Your task to perform on an android device: open app "Google Keep" Image 0: 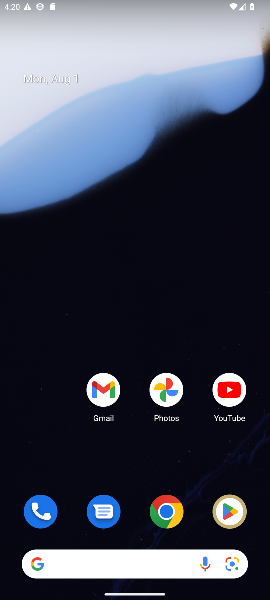
Step 0: click (222, 516)
Your task to perform on an android device: open app "Google Keep" Image 1: 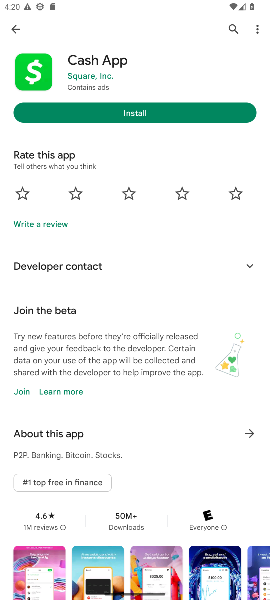
Step 1: click (14, 32)
Your task to perform on an android device: open app "Google Keep" Image 2: 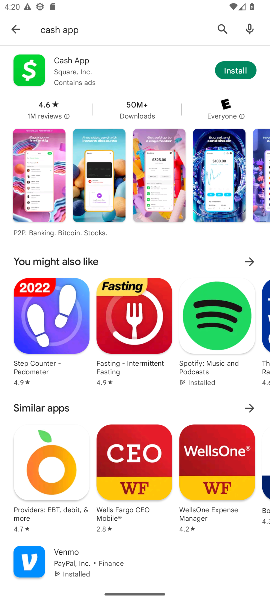
Step 2: click (14, 33)
Your task to perform on an android device: open app "Google Keep" Image 3: 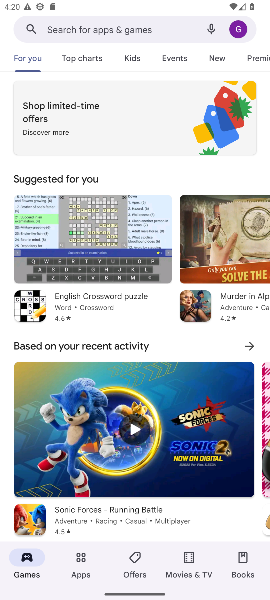
Step 3: click (64, 33)
Your task to perform on an android device: open app "Google Keep" Image 4: 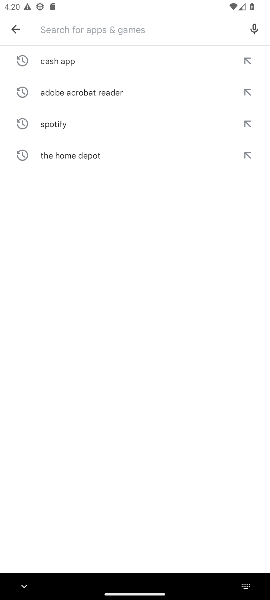
Step 4: type "google keep"
Your task to perform on an android device: open app "Google Keep" Image 5: 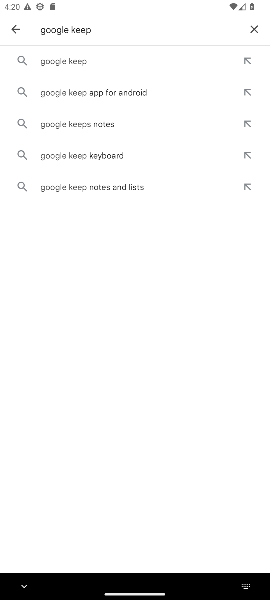
Step 5: click (58, 57)
Your task to perform on an android device: open app "Google Keep" Image 6: 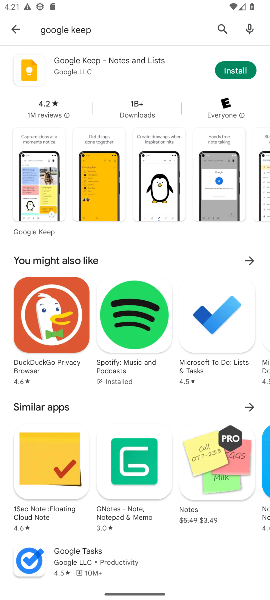
Step 6: click (242, 68)
Your task to perform on an android device: open app "Google Keep" Image 7: 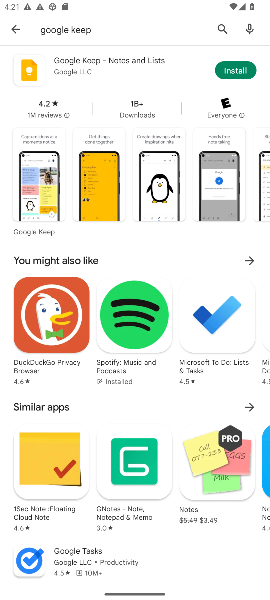
Step 7: click (231, 71)
Your task to perform on an android device: open app "Google Keep" Image 8: 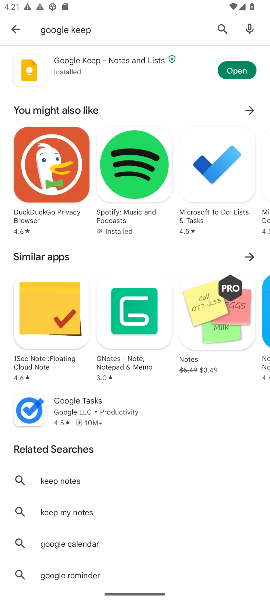
Step 8: click (238, 75)
Your task to perform on an android device: open app "Google Keep" Image 9: 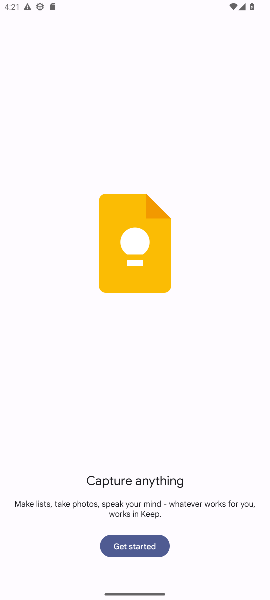
Step 9: click (131, 554)
Your task to perform on an android device: open app "Google Keep" Image 10: 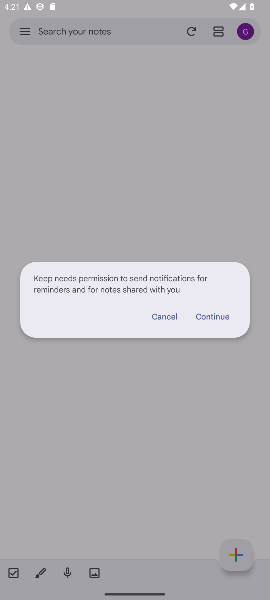
Step 10: click (218, 315)
Your task to perform on an android device: open app "Google Keep" Image 11: 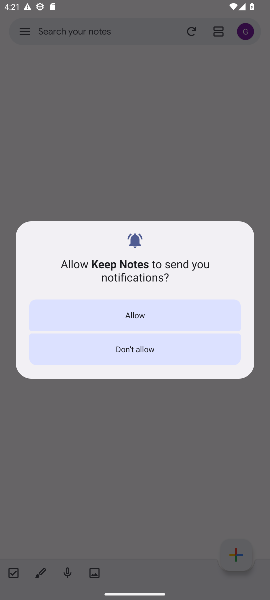
Step 11: click (179, 309)
Your task to perform on an android device: open app "Google Keep" Image 12: 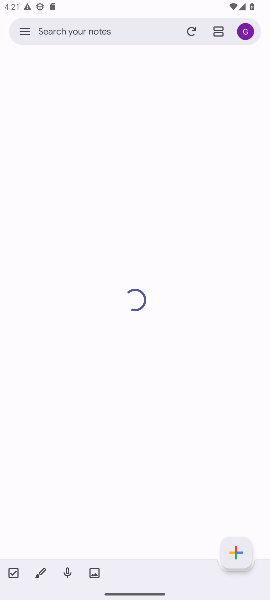
Step 12: task complete